Your task to perform on an android device: delete location history Image 0: 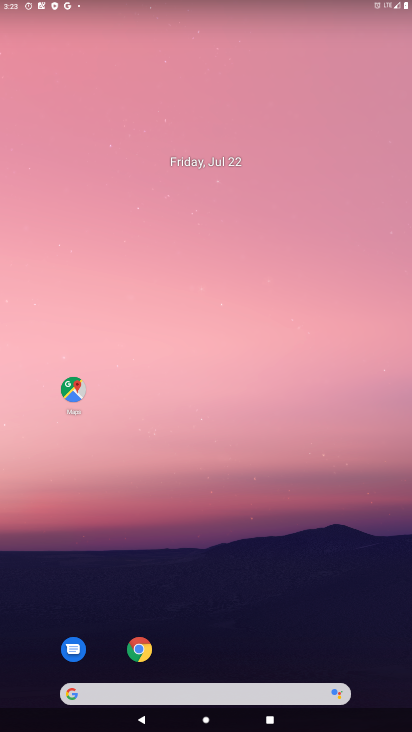
Step 0: drag from (311, 633) to (307, 106)
Your task to perform on an android device: delete location history Image 1: 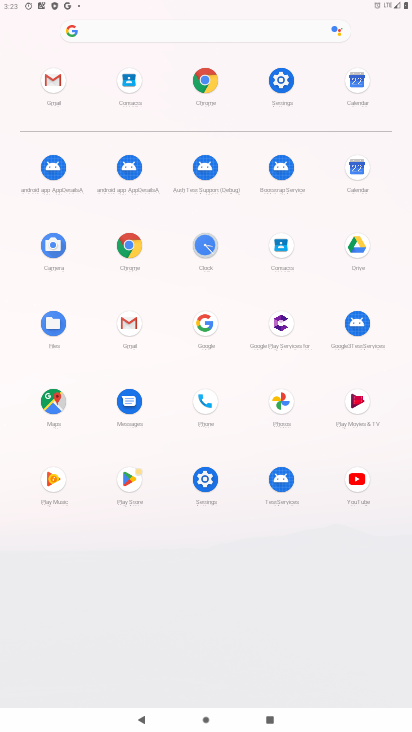
Step 1: click (56, 404)
Your task to perform on an android device: delete location history Image 2: 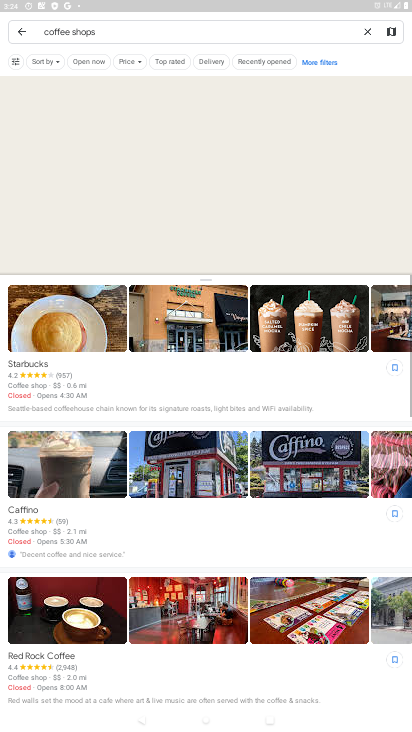
Step 2: click (22, 32)
Your task to perform on an android device: delete location history Image 3: 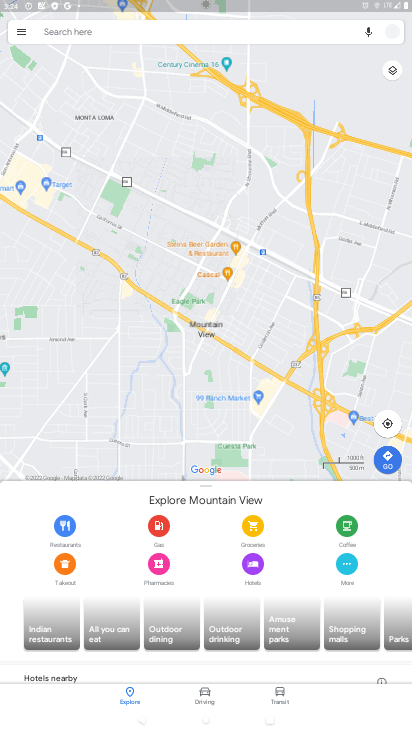
Step 3: click (27, 35)
Your task to perform on an android device: delete location history Image 4: 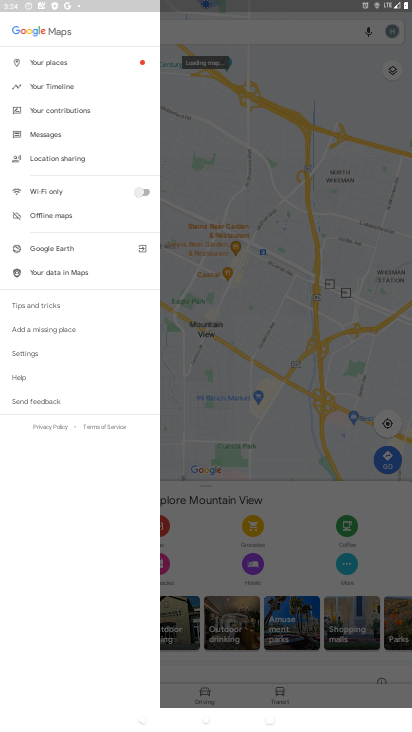
Step 4: click (23, 29)
Your task to perform on an android device: delete location history Image 5: 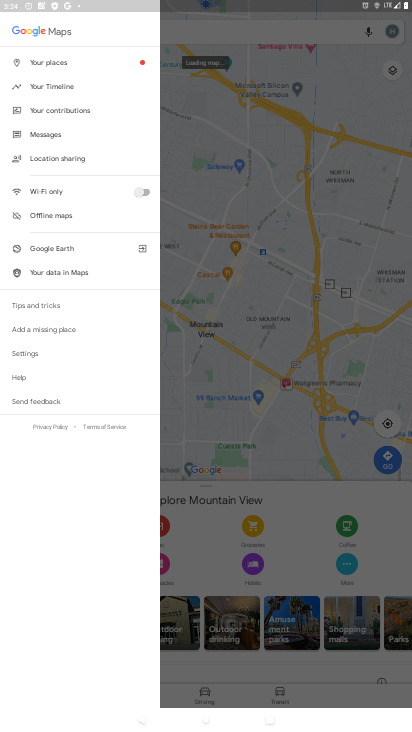
Step 5: click (32, 355)
Your task to perform on an android device: delete location history Image 6: 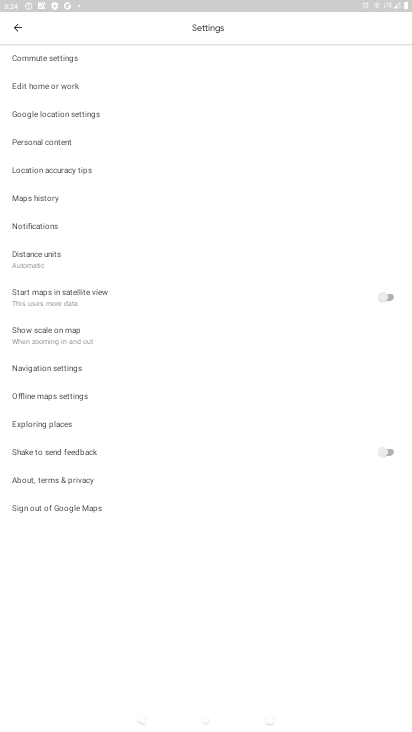
Step 6: click (38, 196)
Your task to perform on an android device: delete location history Image 7: 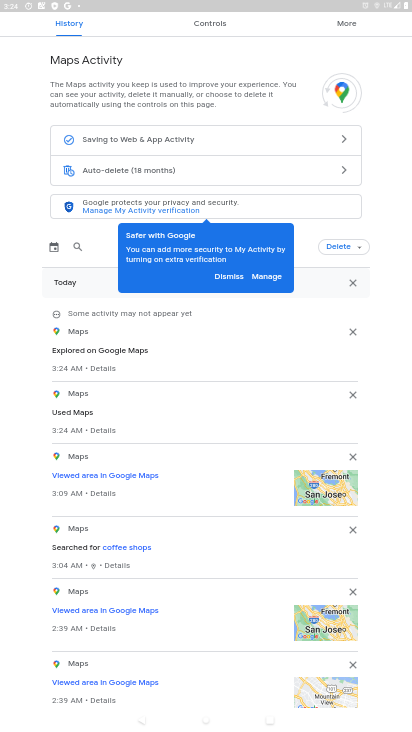
Step 7: click (339, 247)
Your task to perform on an android device: delete location history Image 8: 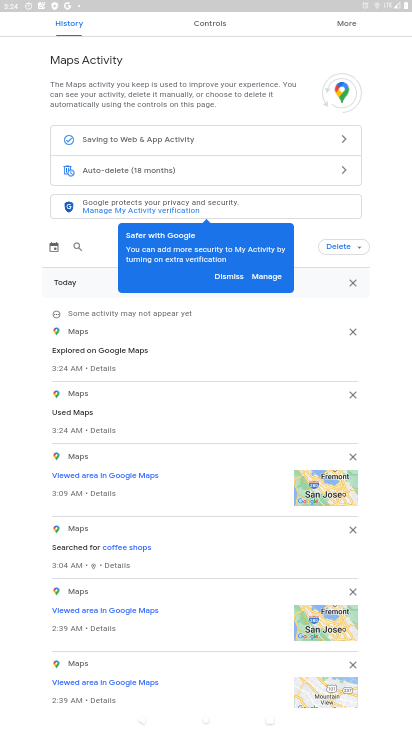
Step 8: click (226, 282)
Your task to perform on an android device: delete location history Image 9: 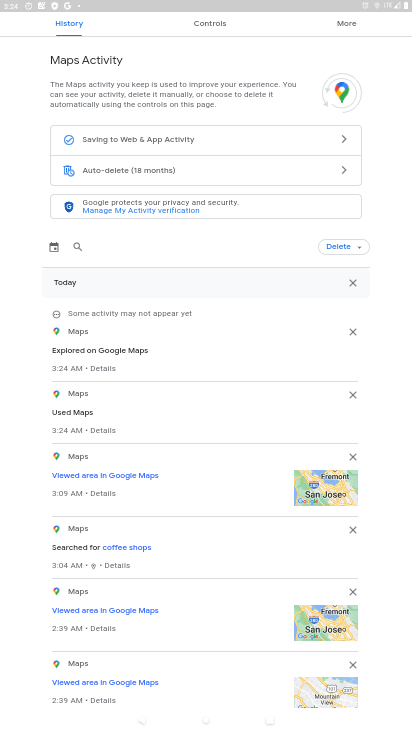
Step 9: click (343, 249)
Your task to perform on an android device: delete location history Image 10: 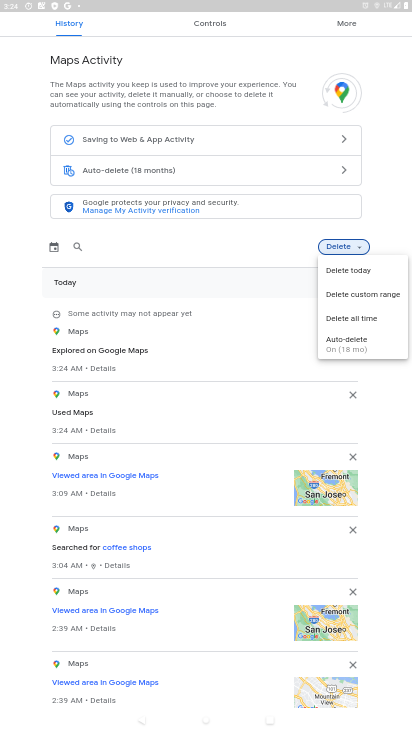
Step 10: click (357, 321)
Your task to perform on an android device: delete location history Image 11: 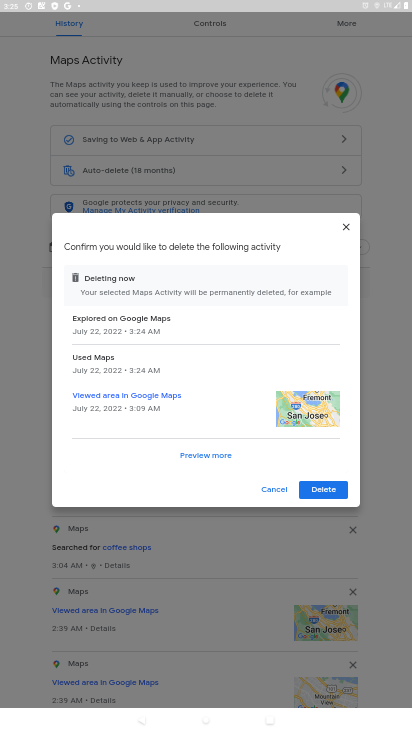
Step 11: click (317, 495)
Your task to perform on an android device: delete location history Image 12: 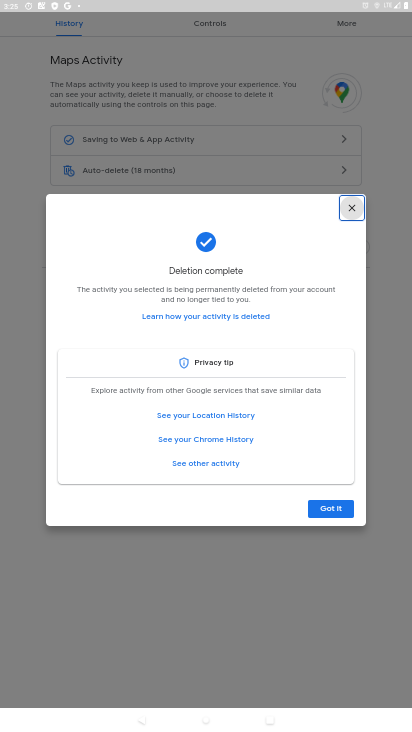
Step 12: task complete